Your task to perform on an android device: What's the weather going to be tomorrow? Image 0: 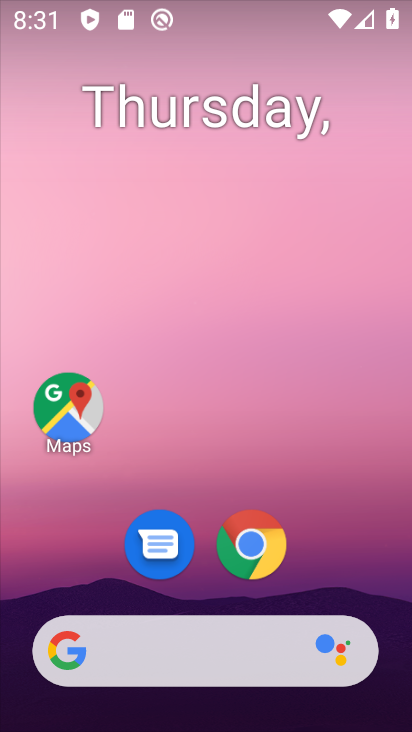
Step 0: click (264, 635)
Your task to perform on an android device: What's the weather going to be tomorrow? Image 1: 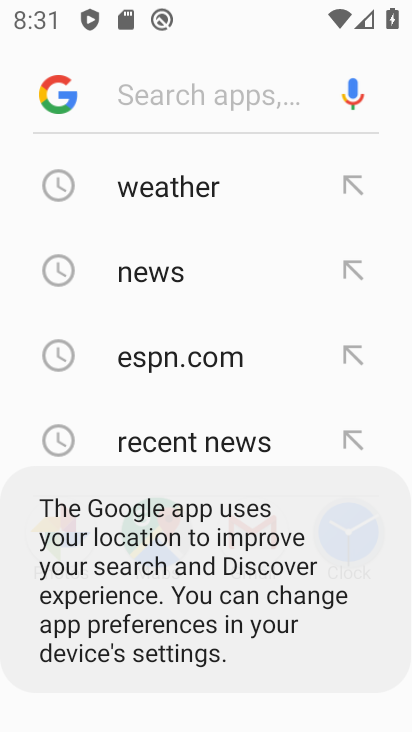
Step 1: type "What's the weather going to be tomorrow?"
Your task to perform on an android device: What's the weather going to be tomorrow? Image 2: 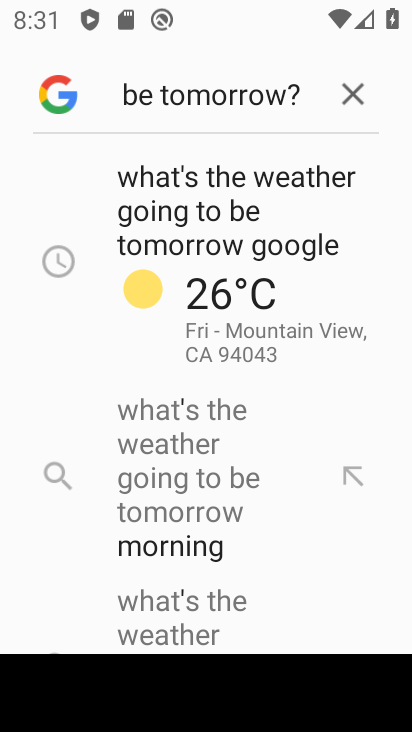
Step 2: click (256, 193)
Your task to perform on an android device: What's the weather going to be tomorrow? Image 3: 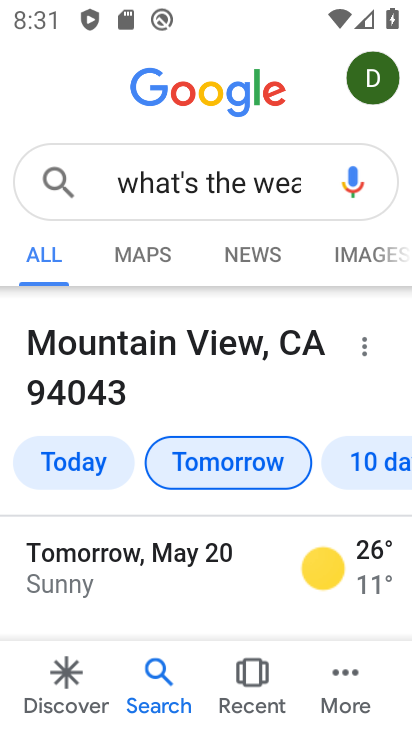
Step 3: task complete